Your task to perform on an android device: open a bookmark in the chrome app Image 0: 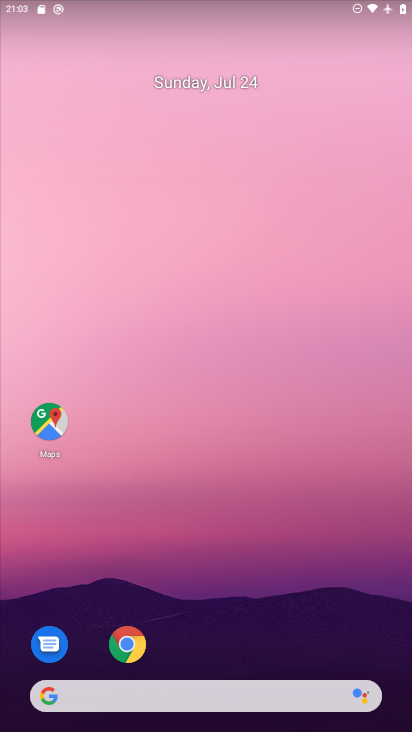
Step 0: click (129, 643)
Your task to perform on an android device: open a bookmark in the chrome app Image 1: 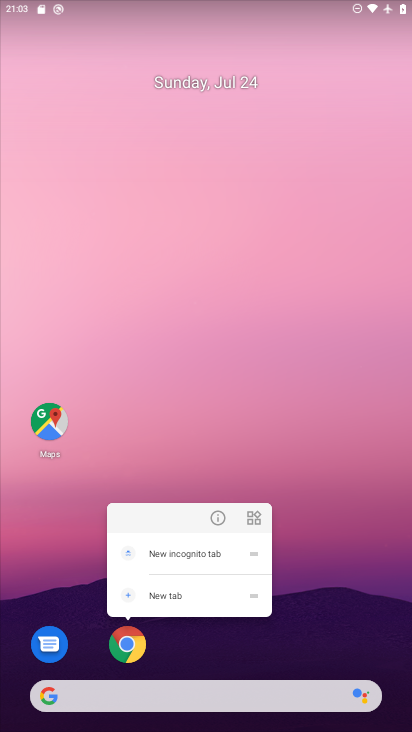
Step 1: click (127, 643)
Your task to perform on an android device: open a bookmark in the chrome app Image 2: 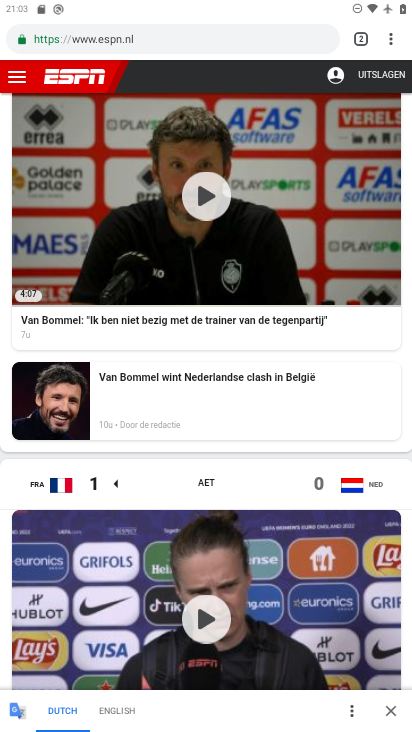
Step 2: click (392, 47)
Your task to perform on an android device: open a bookmark in the chrome app Image 3: 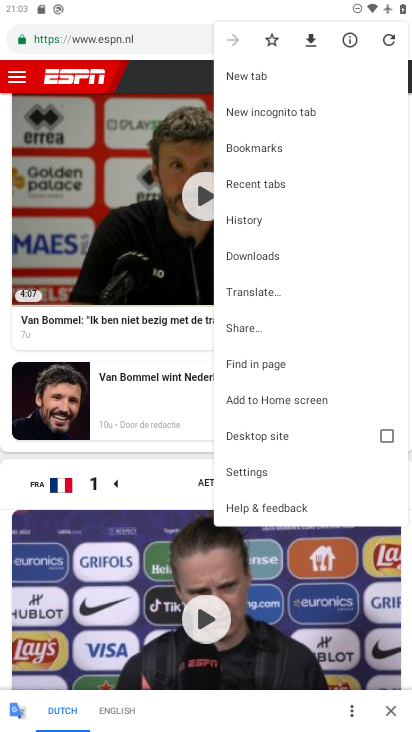
Step 3: click (246, 138)
Your task to perform on an android device: open a bookmark in the chrome app Image 4: 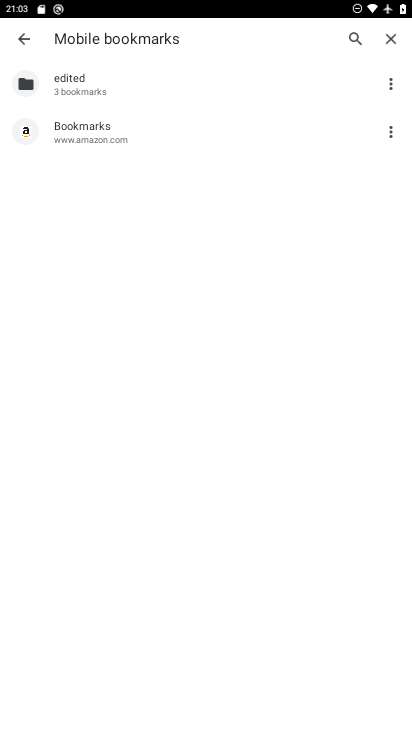
Step 4: task complete